Your task to perform on an android device: Search for pizza restaurants on Maps Image 0: 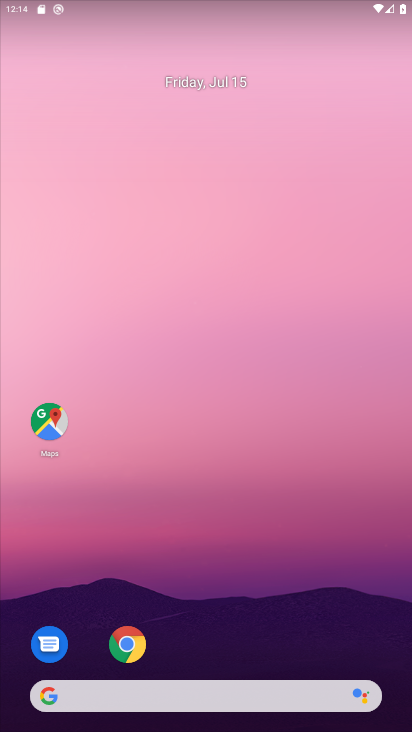
Step 0: click (36, 403)
Your task to perform on an android device: Search for pizza restaurants on Maps Image 1: 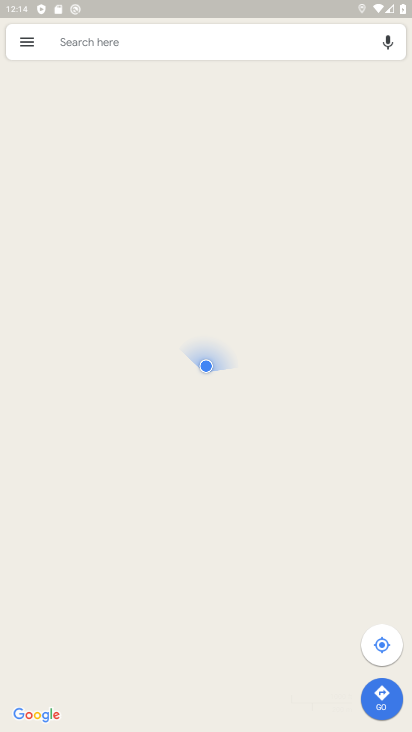
Step 1: click (129, 36)
Your task to perform on an android device: Search for pizza restaurants on Maps Image 2: 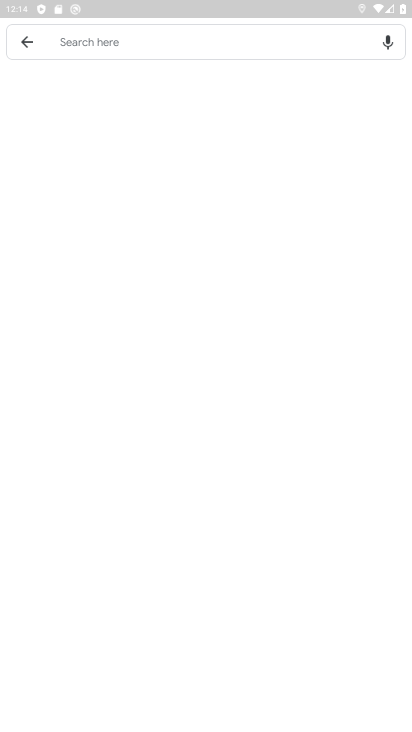
Step 2: type "pizza restaurants"
Your task to perform on an android device: Search for pizza restaurants on Maps Image 3: 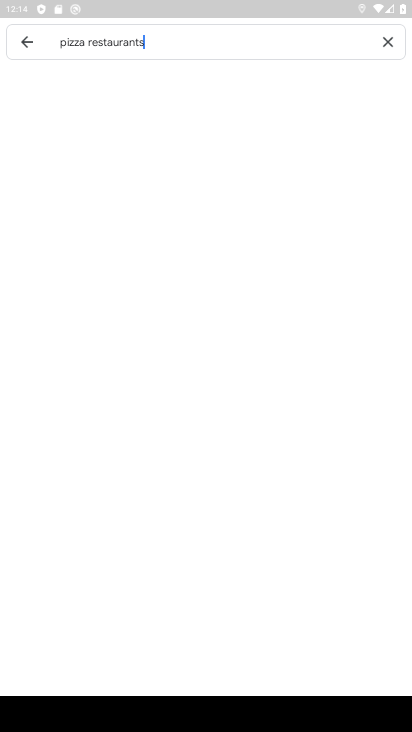
Step 3: type ""
Your task to perform on an android device: Search for pizza restaurants on Maps Image 4: 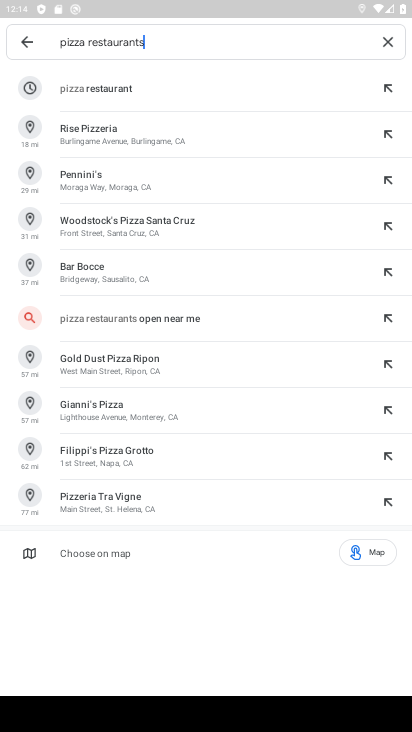
Step 4: click (241, 100)
Your task to perform on an android device: Search for pizza restaurants on Maps Image 5: 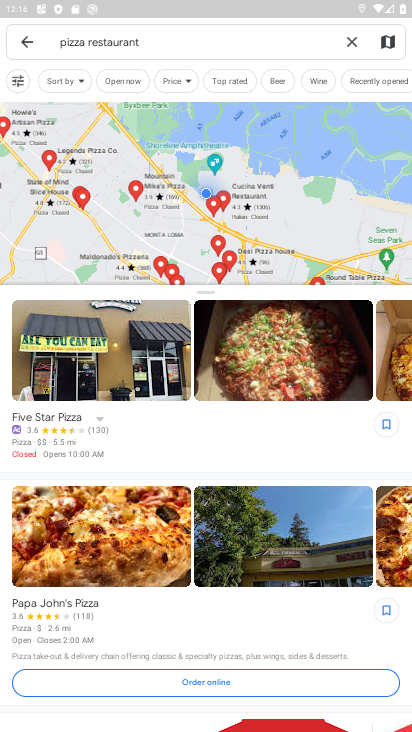
Step 5: task complete